Your task to perform on an android device: What's the weather? Image 0: 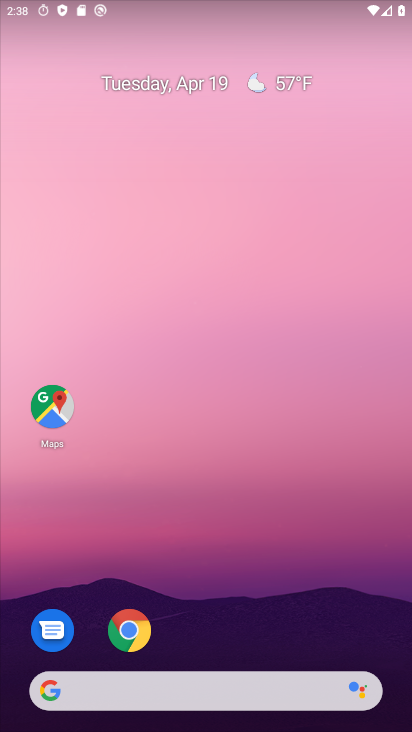
Step 0: drag from (213, 636) to (180, 173)
Your task to perform on an android device: What's the weather? Image 1: 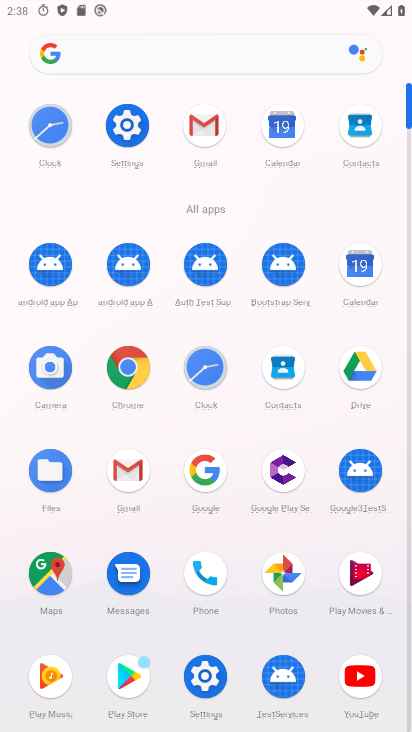
Step 1: click (208, 476)
Your task to perform on an android device: What's the weather? Image 2: 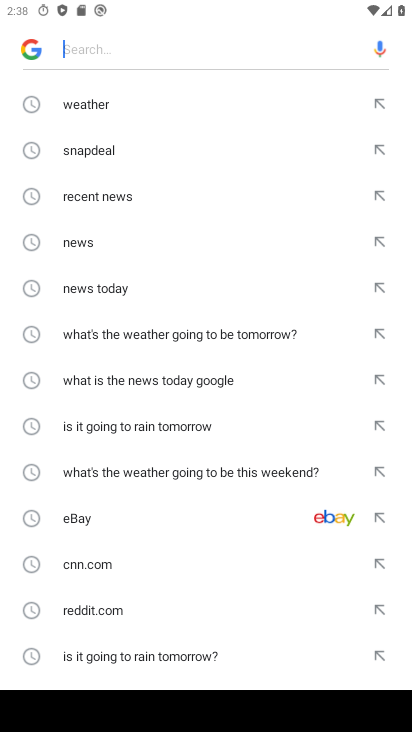
Step 2: click (104, 102)
Your task to perform on an android device: What's the weather? Image 3: 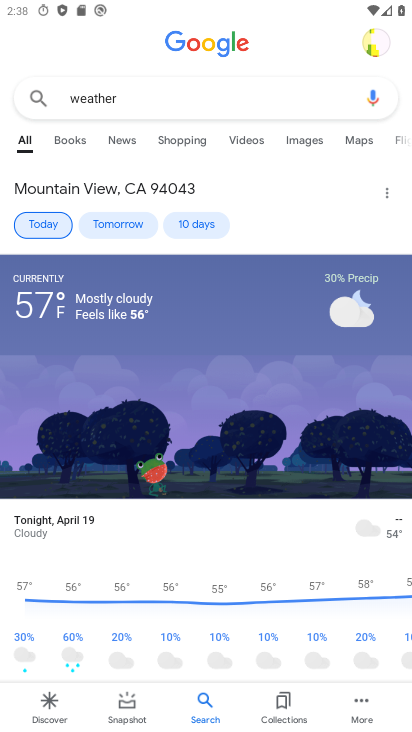
Step 3: task complete